Your task to perform on an android device: change notification settings in the gmail app Image 0: 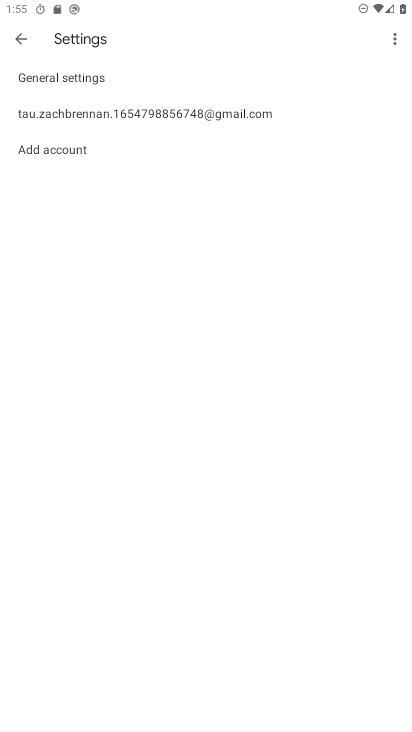
Step 0: press home button
Your task to perform on an android device: change notification settings in the gmail app Image 1: 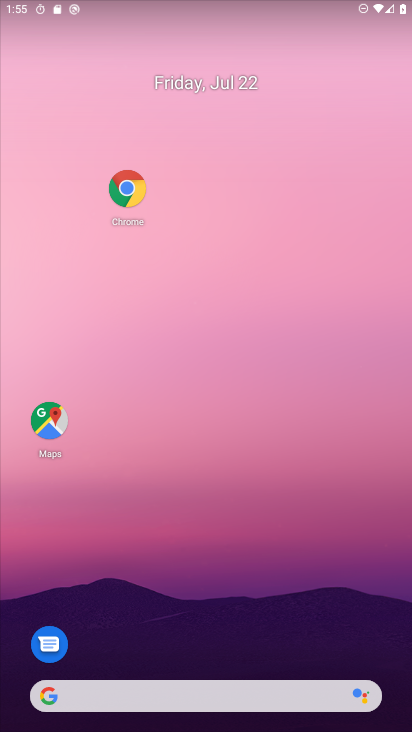
Step 1: drag from (195, 379) to (168, 81)
Your task to perform on an android device: change notification settings in the gmail app Image 2: 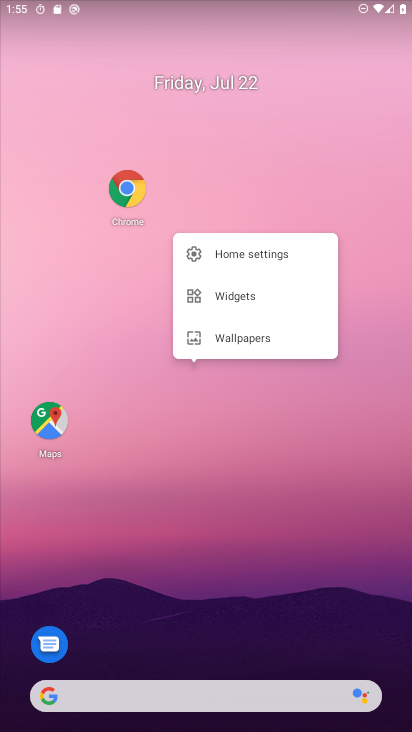
Step 2: drag from (202, 624) to (362, 20)
Your task to perform on an android device: change notification settings in the gmail app Image 3: 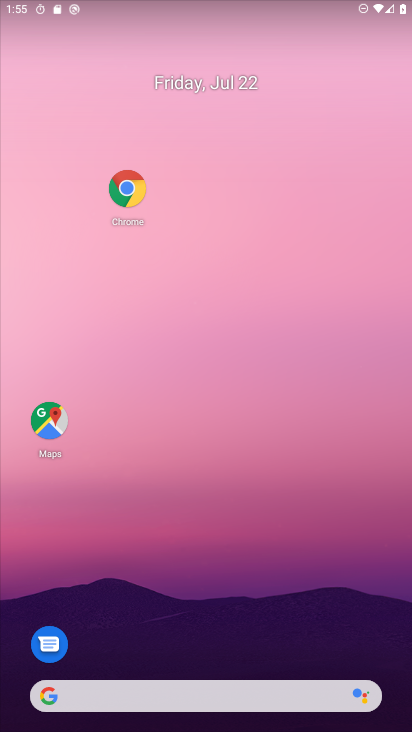
Step 3: drag from (179, 653) to (172, 102)
Your task to perform on an android device: change notification settings in the gmail app Image 4: 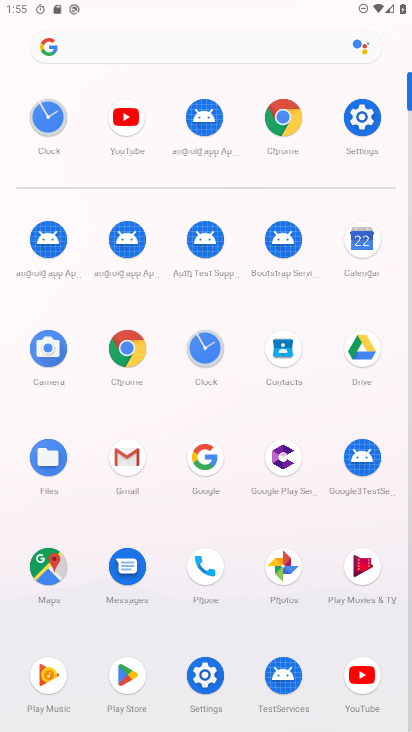
Step 4: click (127, 464)
Your task to perform on an android device: change notification settings in the gmail app Image 5: 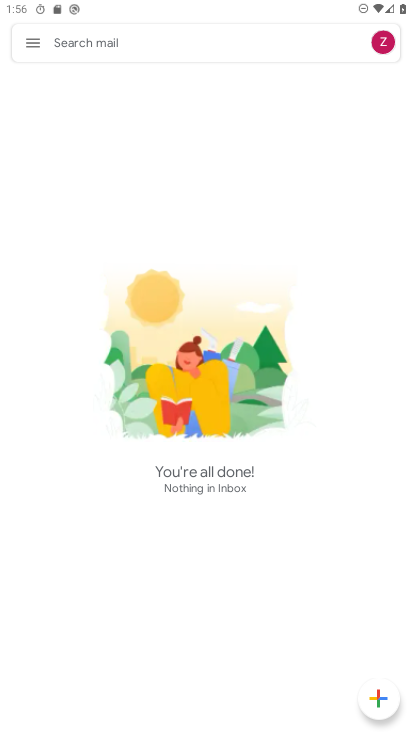
Step 5: click (38, 50)
Your task to perform on an android device: change notification settings in the gmail app Image 6: 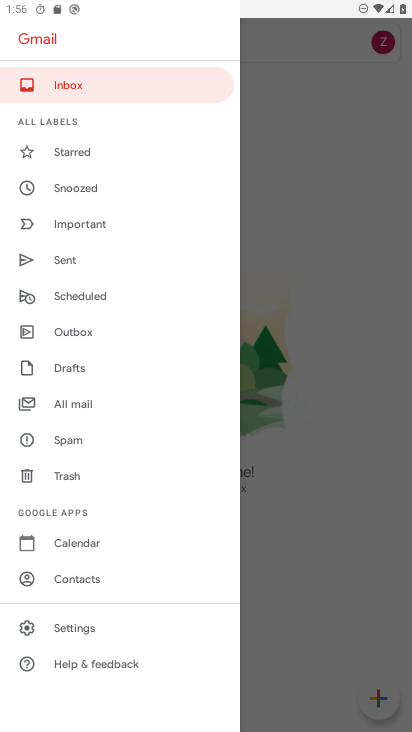
Step 6: click (78, 634)
Your task to perform on an android device: change notification settings in the gmail app Image 7: 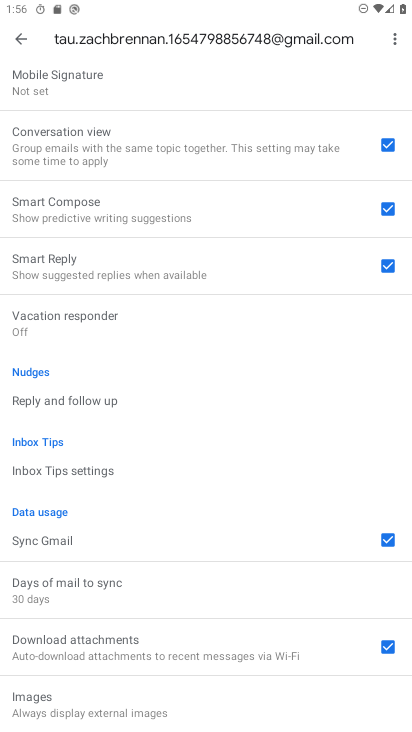
Step 7: click (78, 634)
Your task to perform on an android device: change notification settings in the gmail app Image 8: 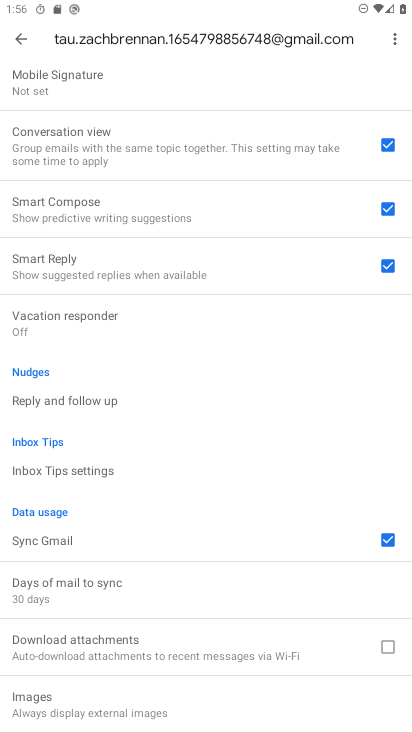
Step 8: task complete